Your task to perform on an android device: Open Chrome and go to settings Image 0: 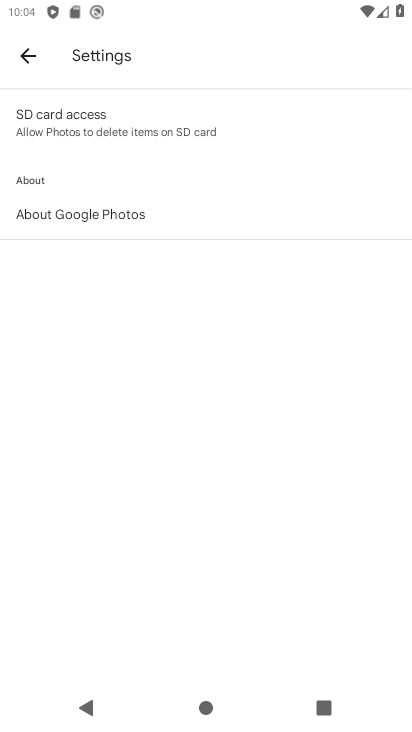
Step 0: click (130, 562)
Your task to perform on an android device: Open Chrome and go to settings Image 1: 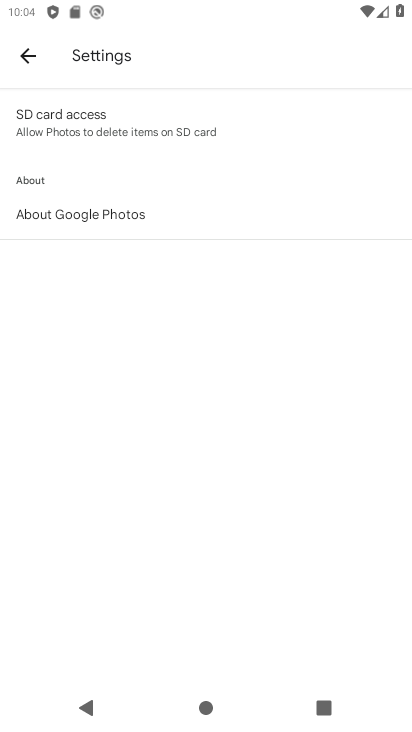
Step 1: press home button
Your task to perform on an android device: Open Chrome and go to settings Image 2: 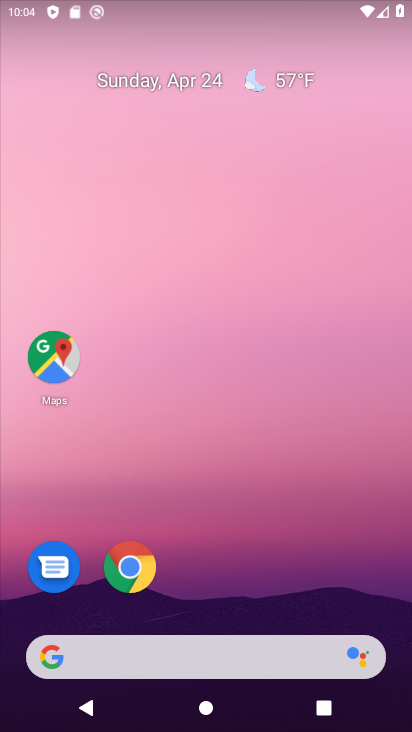
Step 2: click (127, 564)
Your task to perform on an android device: Open Chrome and go to settings Image 3: 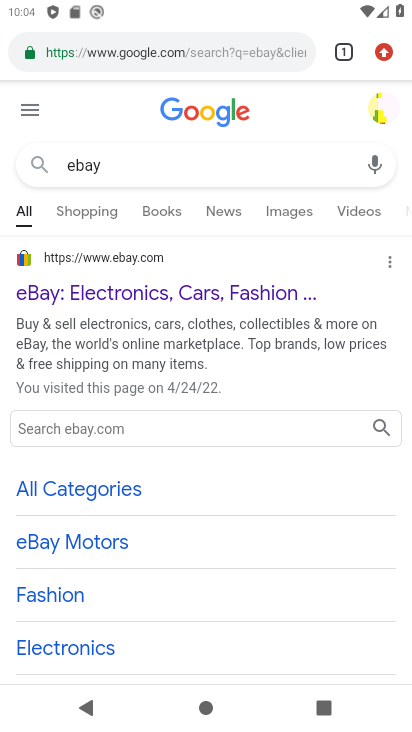
Step 3: click (385, 50)
Your task to perform on an android device: Open Chrome and go to settings Image 4: 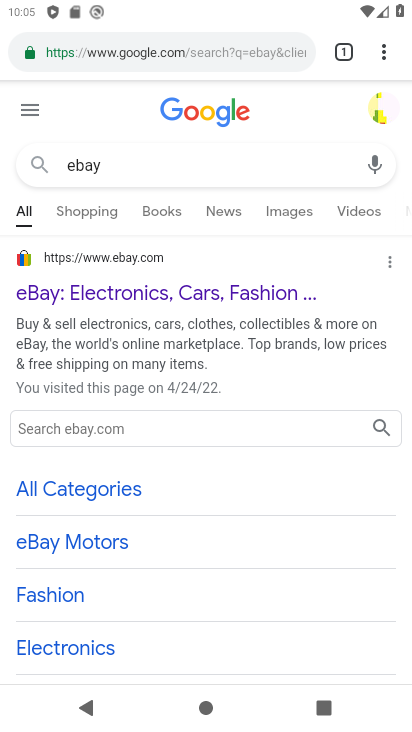
Step 4: click (380, 46)
Your task to perform on an android device: Open Chrome and go to settings Image 5: 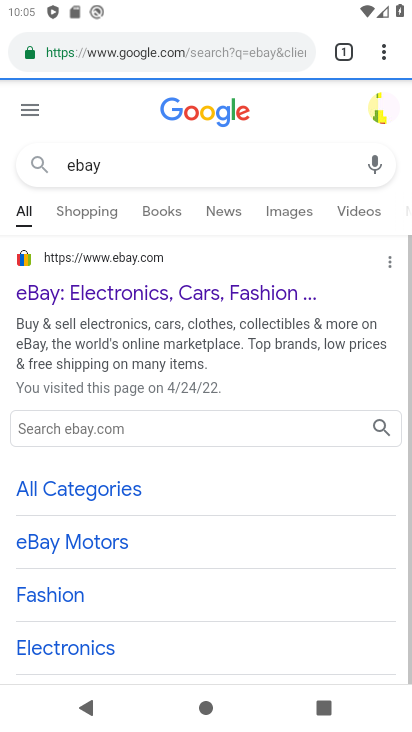
Step 5: click (380, 46)
Your task to perform on an android device: Open Chrome and go to settings Image 6: 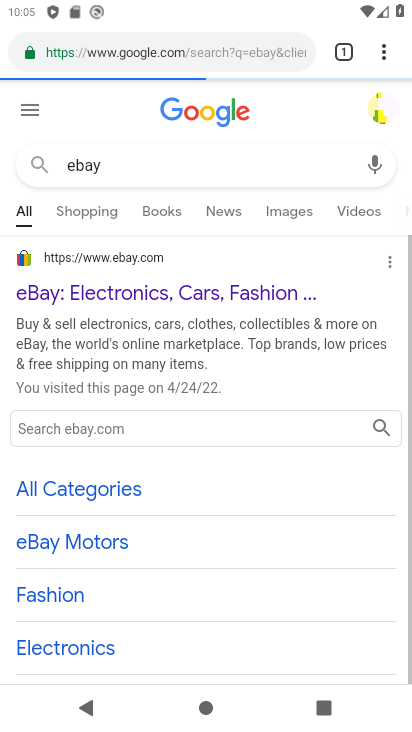
Step 6: click (380, 46)
Your task to perform on an android device: Open Chrome and go to settings Image 7: 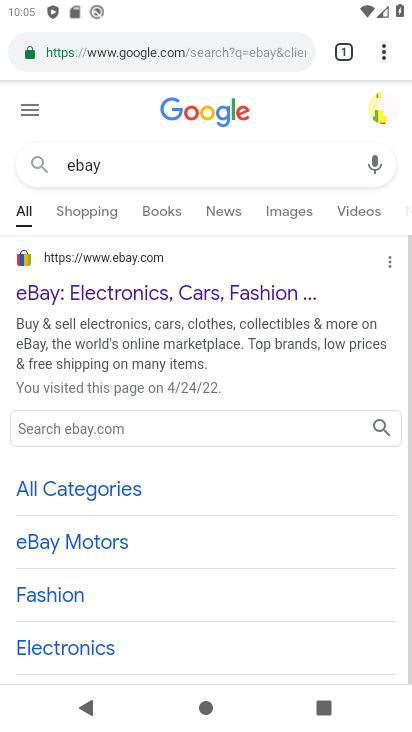
Step 7: click (380, 46)
Your task to perform on an android device: Open Chrome and go to settings Image 8: 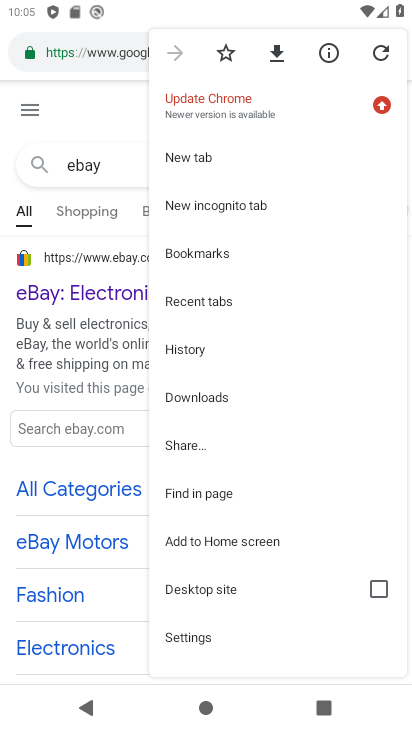
Step 8: click (193, 633)
Your task to perform on an android device: Open Chrome and go to settings Image 9: 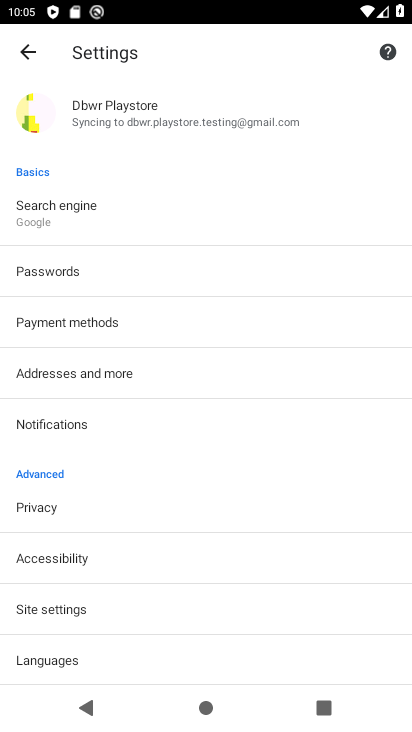
Step 9: task complete